Your task to perform on an android device: set default search engine in the chrome app Image 0: 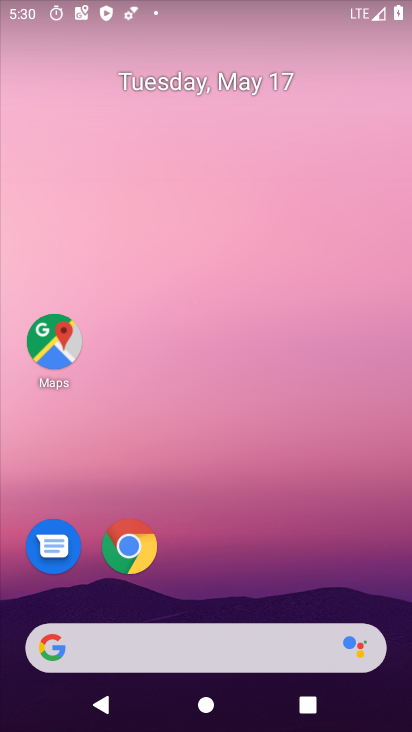
Step 0: drag from (197, 582) to (230, 14)
Your task to perform on an android device: set default search engine in the chrome app Image 1: 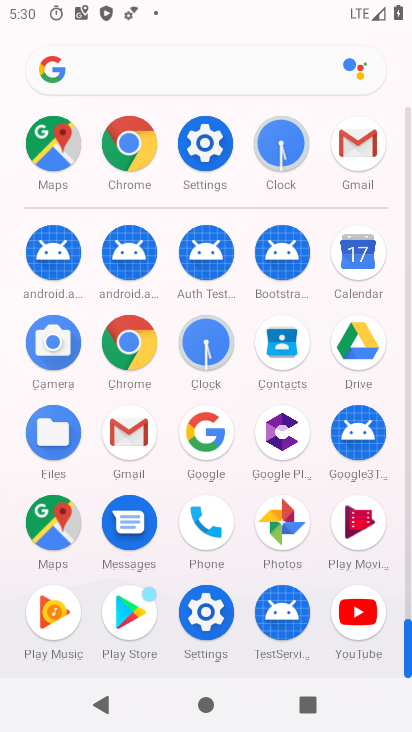
Step 1: click (118, 169)
Your task to perform on an android device: set default search engine in the chrome app Image 2: 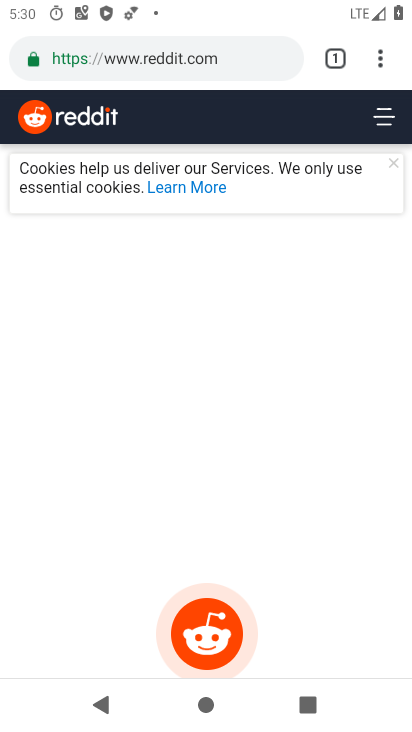
Step 2: click (378, 60)
Your task to perform on an android device: set default search engine in the chrome app Image 3: 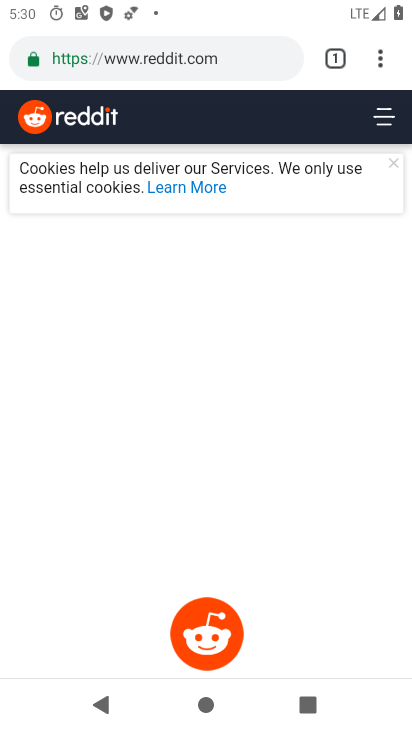
Step 3: click (382, 63)
Your task to perform on an android device: set default search engine in the chrome app Image 4: 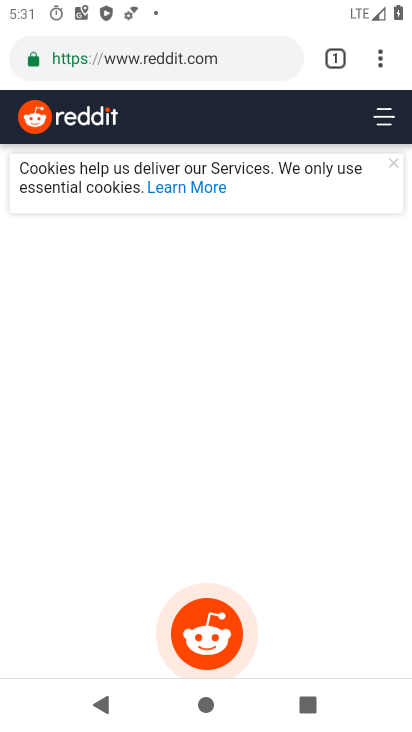
Step 4: click (377, 58)
Your task to perform on an android device: set default search engine in the chrome app Image 5: 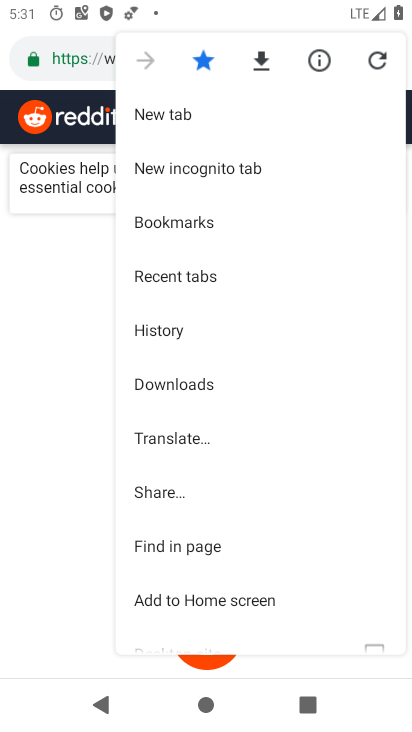
Step 5: drag from (257, 578) to (308, 383)
Your task to perform on an android device: set default search engine in the chrome app Image 6: 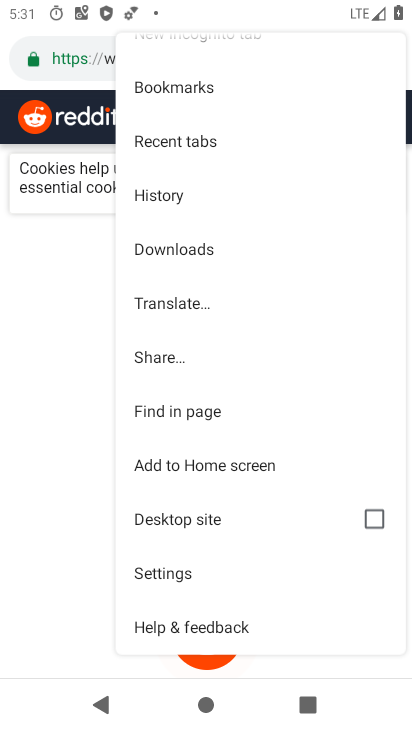
Step 6: click (168, 572)
Your task to perform on an android device: set default search engine in the chrome app Image 7: 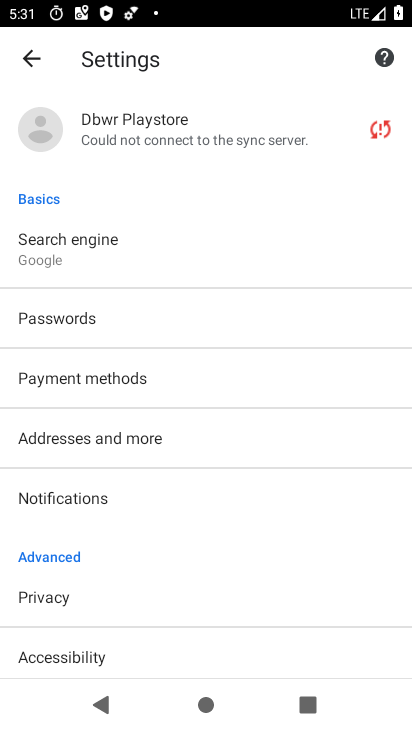
Step 7: click (40, 261)
Your task to perform on an android device: set default search engine in the chrome app Image 8: 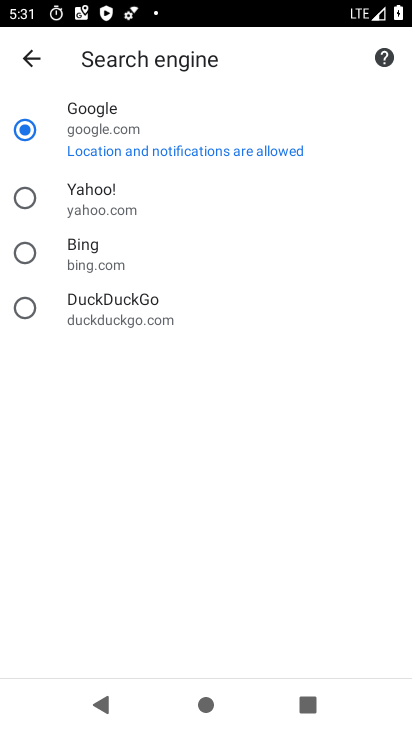
Step 8: click (17, 240)
Your task to perform on an android device: set default search engine in the chrome app Image 9: 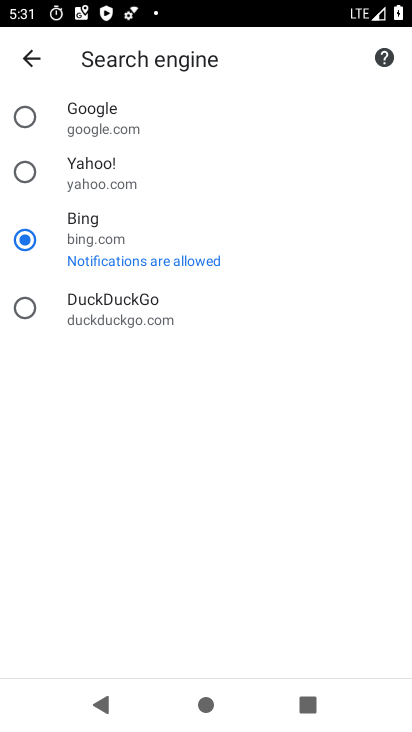
Step 9: task complete